Your task to perform on an android device: Show me popular videos on Youtube Image 0: 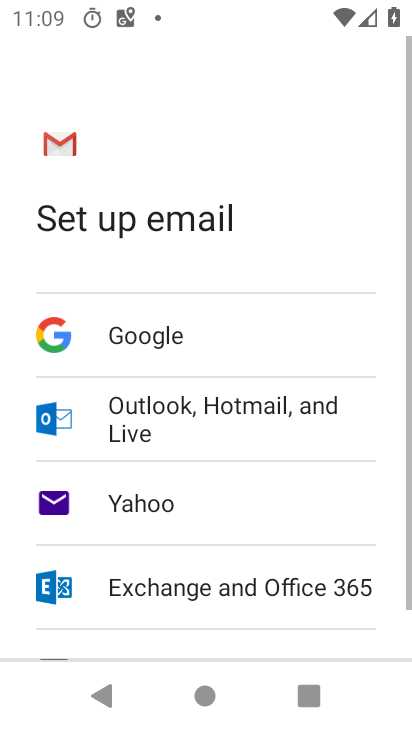
Step 0: press home button
Your task to perform on an android device: Show me popular videos on Youtube Image 1: 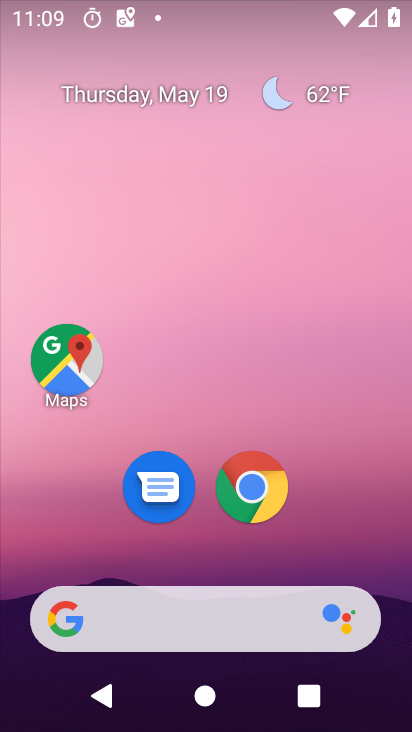
Step 1: drag from (342, 535) to (357, 191)
Your task to perform on an android device: Show me popular videos on Youtube Image 2: 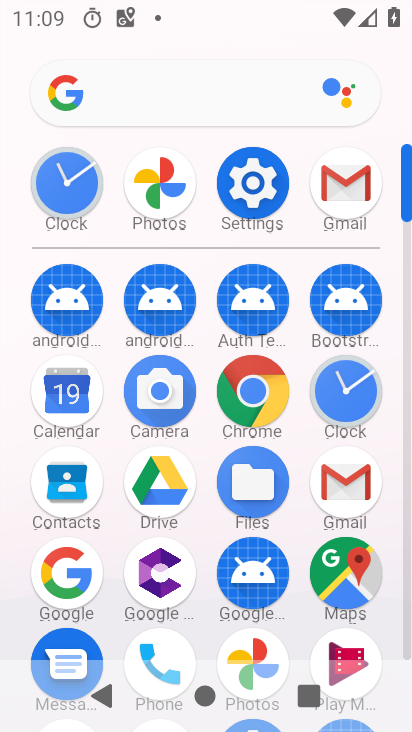
Step 2: drag from (282, 494) to (305, 54)
Your task to perform on an android device: Show me popular videos on Youtube Image 3: 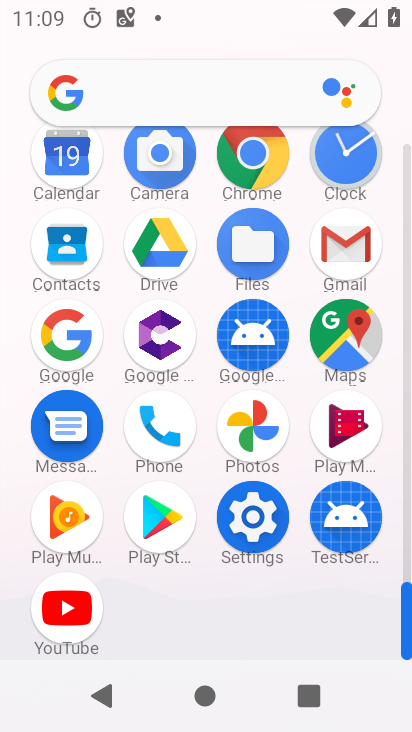
Step 3: click (62, 614)
Your task to perform on an android device: Show me popular videos on Youtube Image 4: 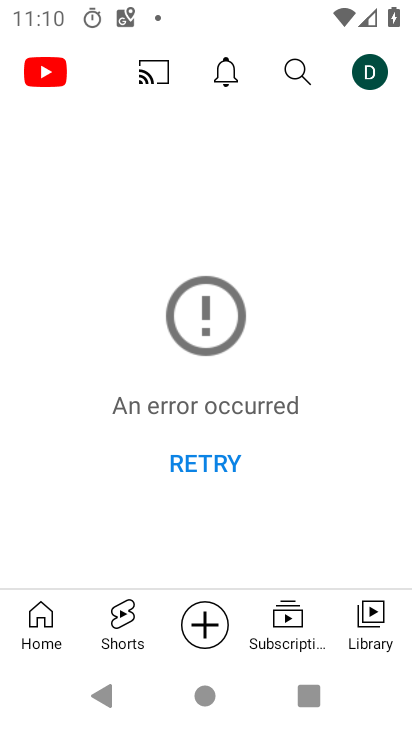
Step 4: click (200, 462)
Your task to perform on an android device: Show me popular videos on Youtube Image 5: 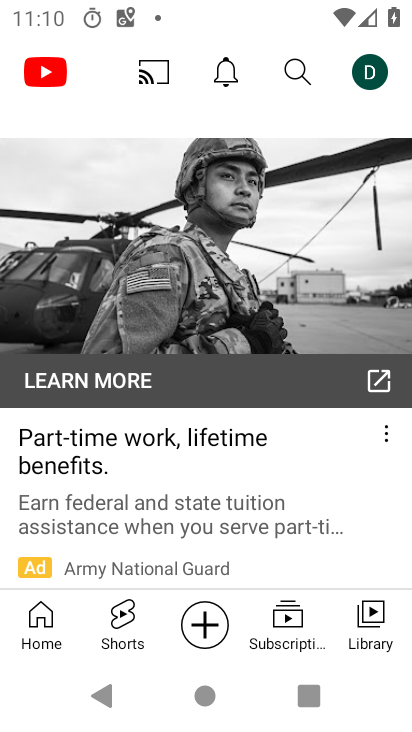
Step 5: drag from (232, 489) to (284, 148)
Your task to perform on an android device: Show me popular videos on Youtube Image 6: 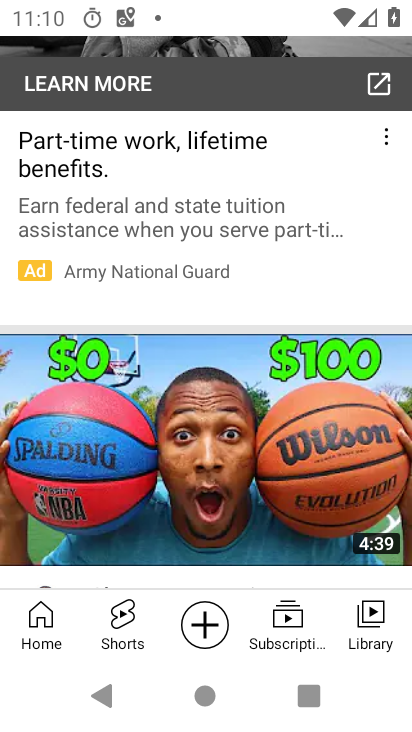
Step 6: drag from (250, 399) to (243, 223)
Your task to perform on an android device: Show me popular videos on Youtube Image 7: 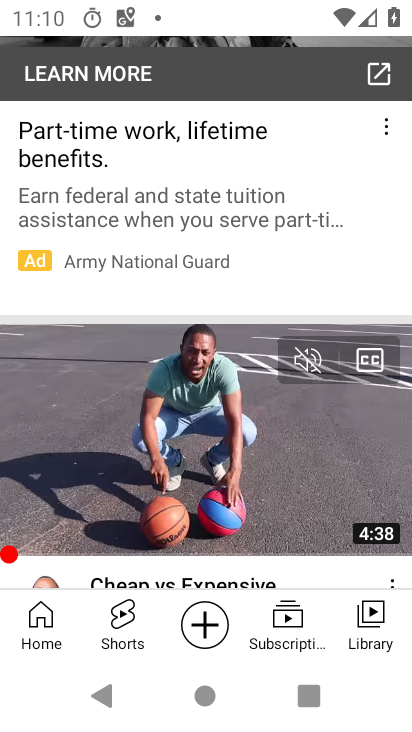
Step 7: click (358, 624)
Your task to perform on an android device: Show me popular videos on Youtube Image 8: 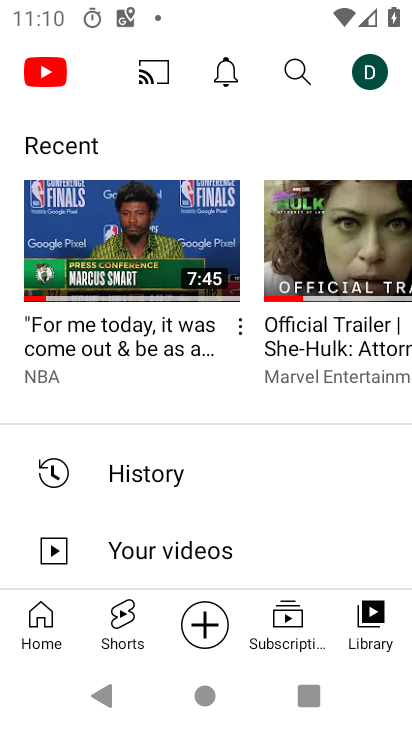
Step 8: click (41, 631)
Your task to perform on an android device: Show me popular videos on Youtube Image 9: 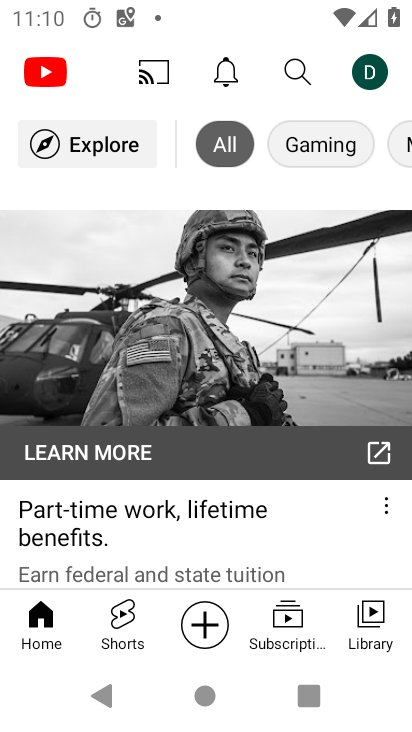
Step 9: drag from (156, 511) to (151, 306)
Your task to perform on an android device: Show me popular videos on Youtube Image 10: 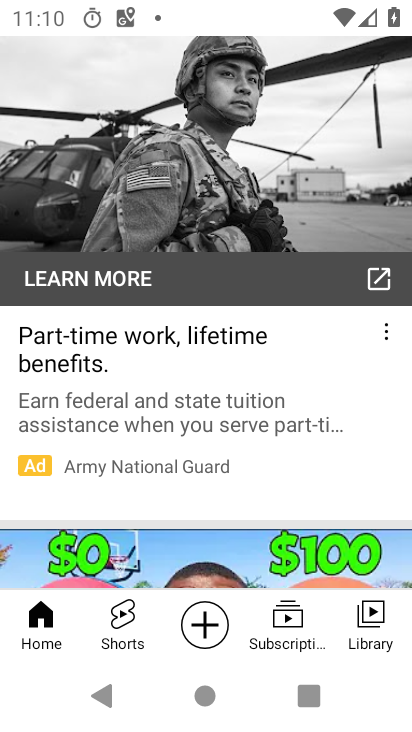
Step 10: drag from (163, 474) to (174, 353)
Your task to perform on an android device: Show me popular videos on Youtube Image 11: 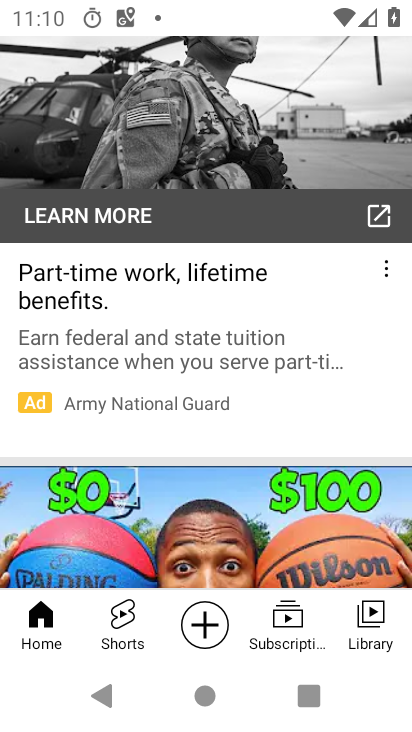
Step 11: drag from (232, 151) to (254, 519)
Your task to perform on an android device: Show me popular videos on Youtube Image 12: 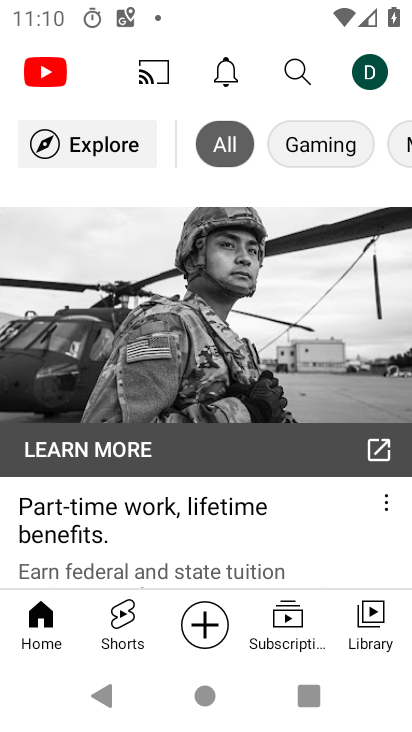
Step 12: click (292, 62)
Your task to perform on an android device: Show me popular videos on Youtube Image 13: 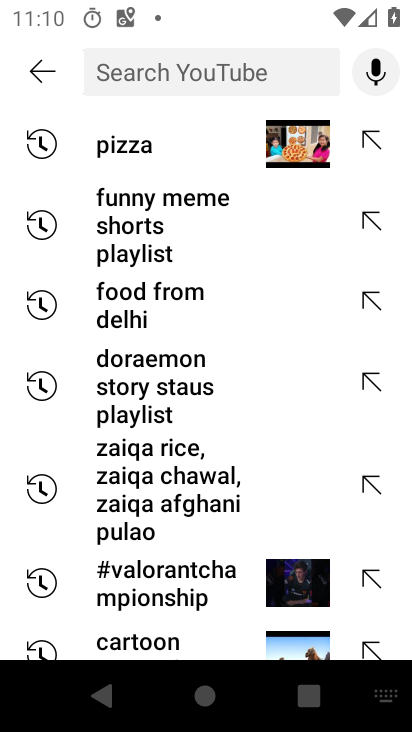
Step 13: type "popular video"
Your task to perform on an android device: Show me popular videos on Youtube Image 14: 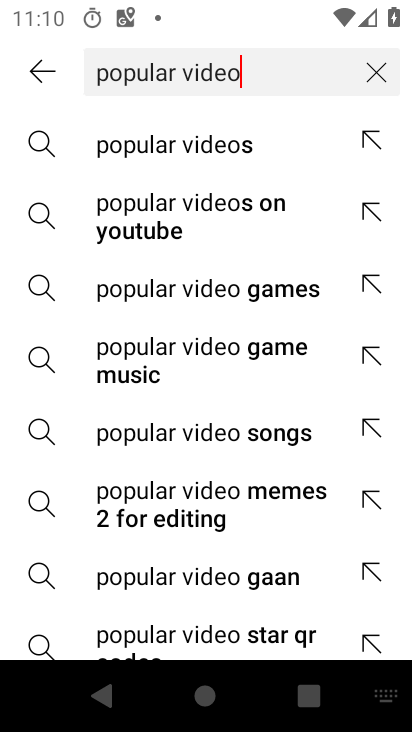
Step 14: click (168, 210)
Your task to perform on an android device: Show me popular videos on Youtube Image 15: 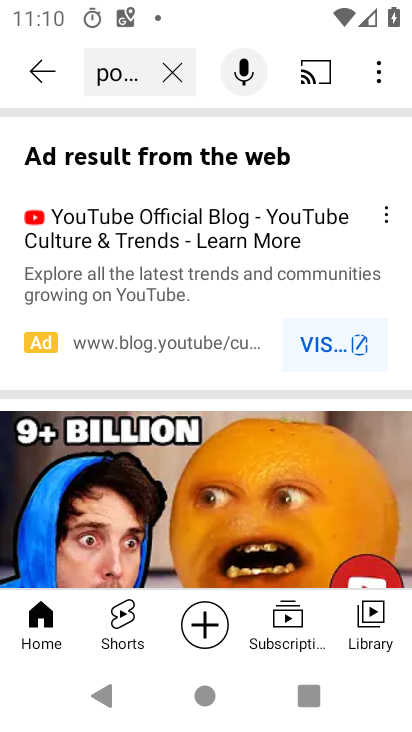
Step 15: drag from (143, 412) to (145, 186)
Your task to perform on an android device: Show me popular videos on Youtube Image 16: 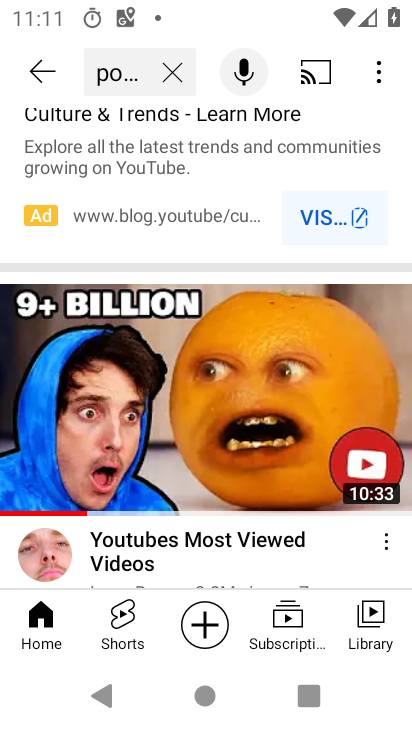
Step 16: click (173, 395)
Your task to perform on an android device: Show me popular videos on Youtube Image 17: 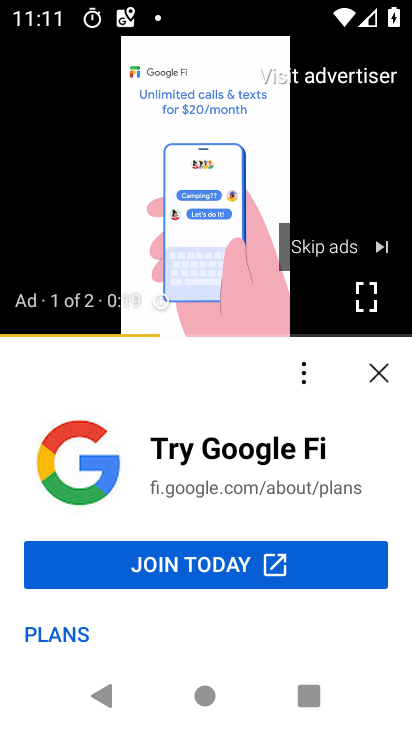
Step 17: click (315, 253)
Your task to perform on an android device: Show me popular videos on Youtube Image 18: 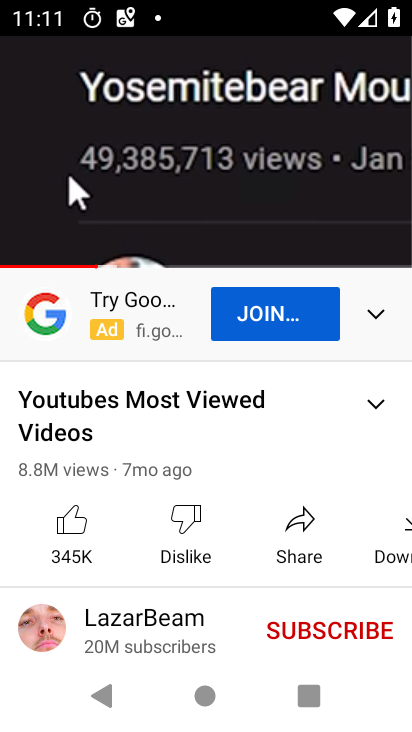
Step 18: task complete